Your task to perform on an android device: delete browsing data in the chrome app Image 0: 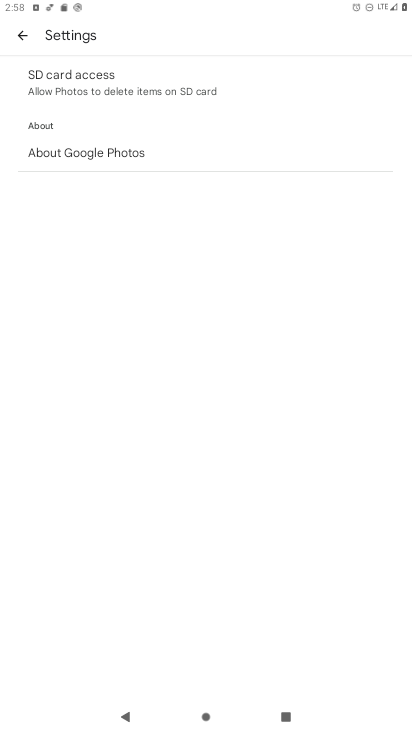
Step 0: press home button
Your task to perform on an android device: delete browsing data in the chrome app Image 1: 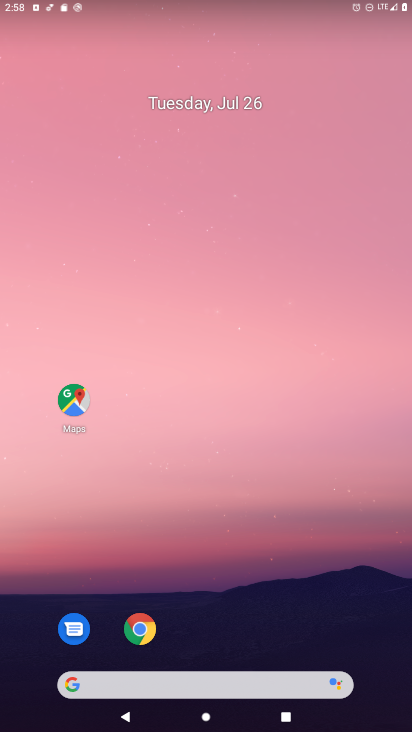
Step 1: click (142, 628)
Your task to perform on an android device: delete browsing data in the chrome app Image 2: 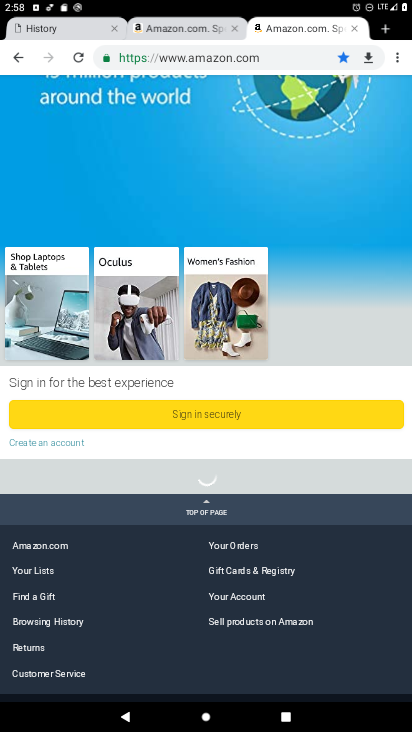
Step 2: click (397, 63)
Your task to perform on an android device: delete browsing data in the chrome app Image 3: 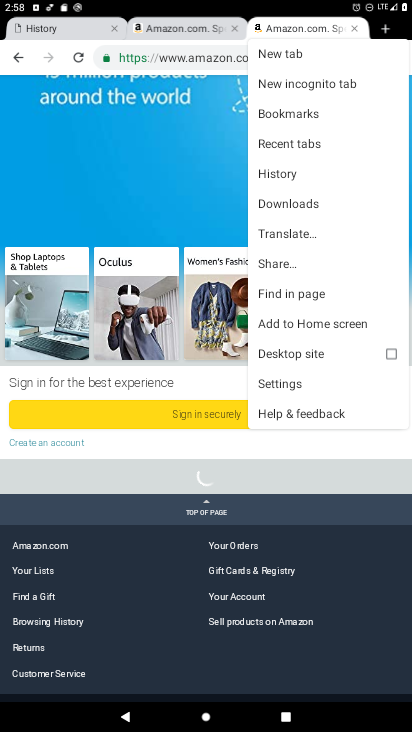
Step 3: click (277, 171)
Your task to perform on an android device: delete browsing data in the chrome app Image 4: 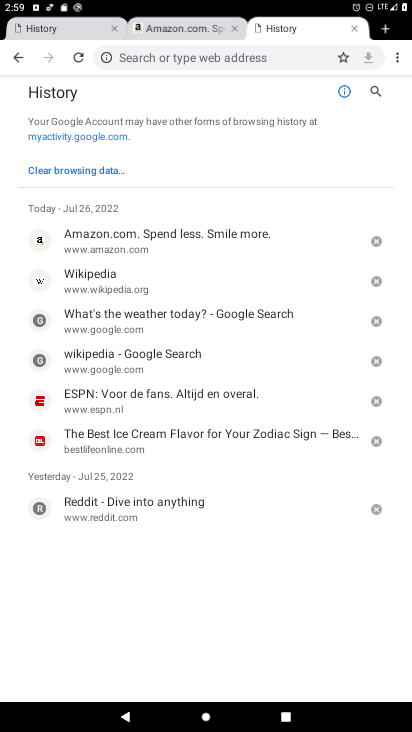
Step 4: click (83, 167)
Your task to perform on an android device: delete browsing data in the chrome app Image 5: 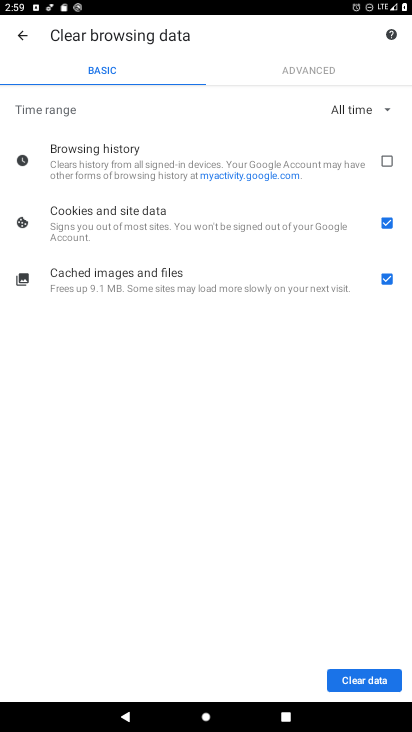
Step 5: click (385, 165)
Your task to perform on an android device: delete browsing data in the chrome app Image 6: 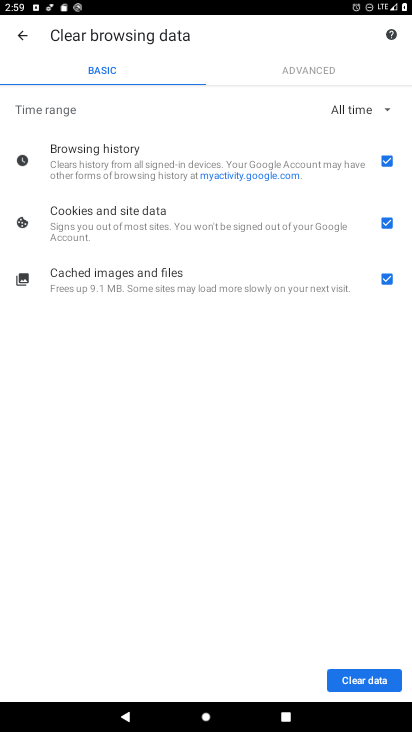
Step 6: click (383, 224)
Your task to perform on an android device: delete browsing data in the chrome app Image 7: 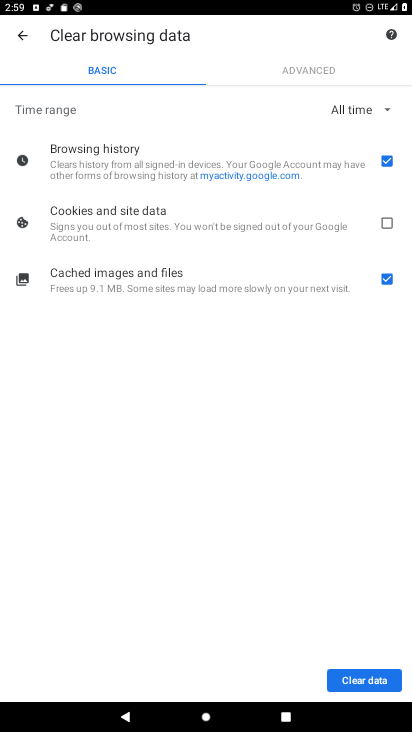
Step 7: click (385, 286)
Your task to perform on an android device: delete browsing data in the chrome app Image 8: 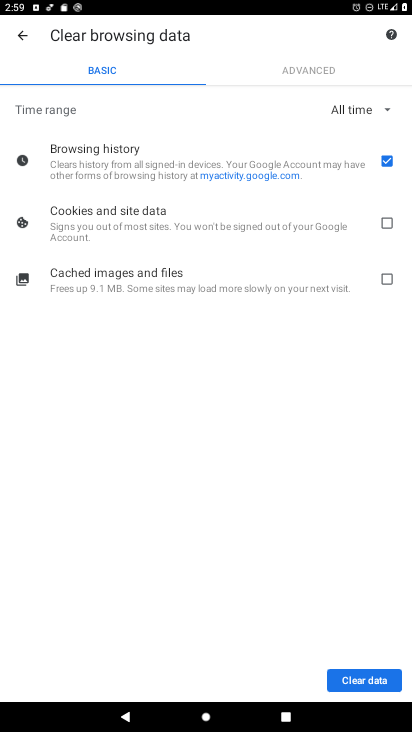
Step 8: click (368, 679)
Your task to perform on an android device: delete browsing data in the chrome app Image 9: 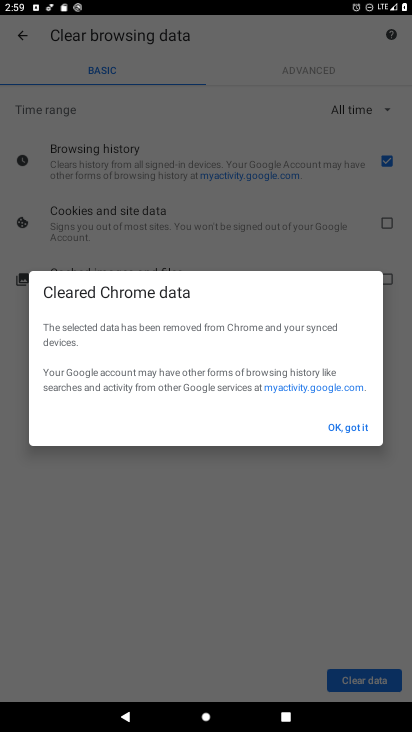
Step 9: click (347, 427)
Your task to perform on an android device: delete browsing data in the chrome app Image 10: 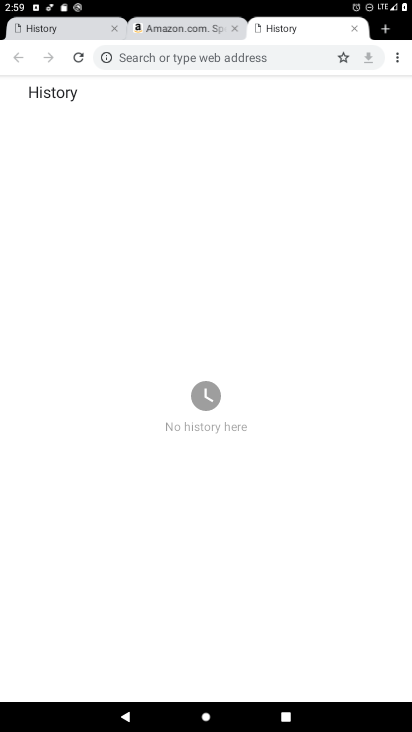
Step 10: task complete